Your task to perform on an android device: When is my next appointment? Image 0: 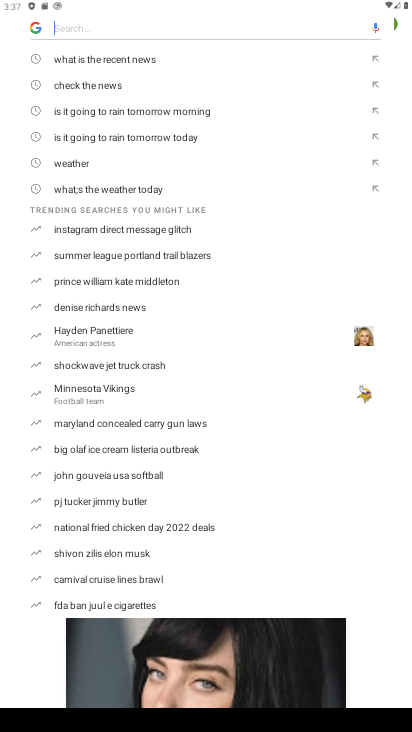
Step 0: press home button
Your task to perform on an android device: When is my next appointment? Image 1: 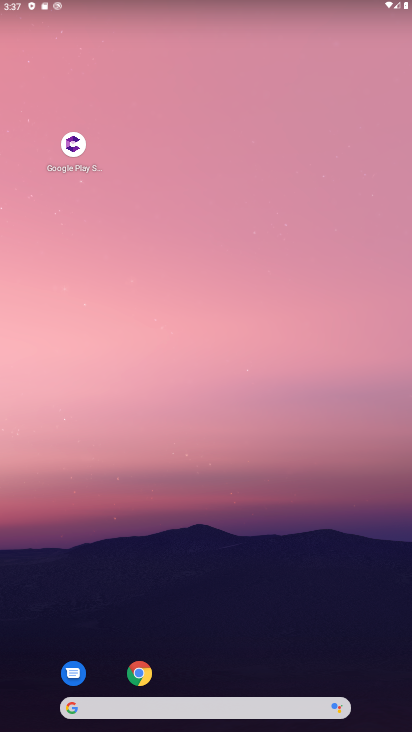
Step 1: drag from (227, 674) to (227, 180)
Your task to perform on an android device: When is my next appointment? Image 2: 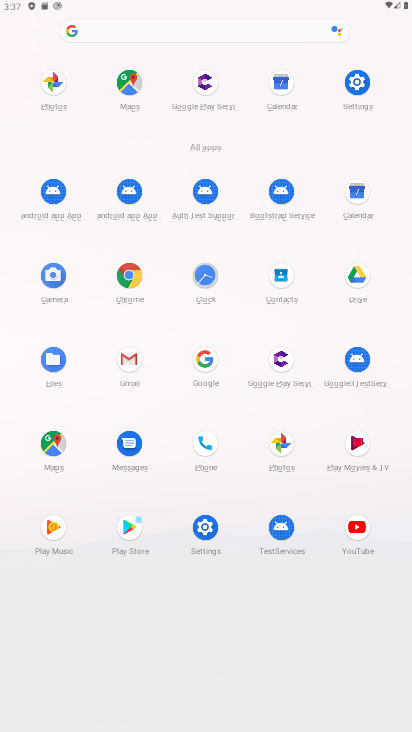
Step 2: click (355, 186)
Your task to perform on an android device: When is my next appointment? Image 3: 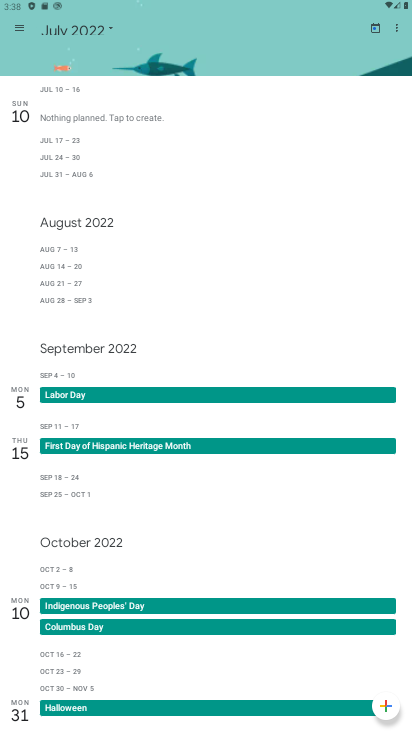
Step 3: task complete